Your task to perform on an android device: open chrome privacy settings Image 0: 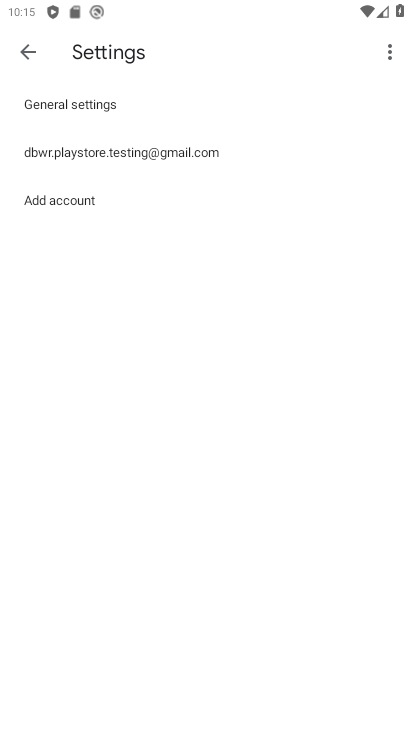
Step 0: press back button
Your task to perform on an android device: open chrome privacy settings Image 1: 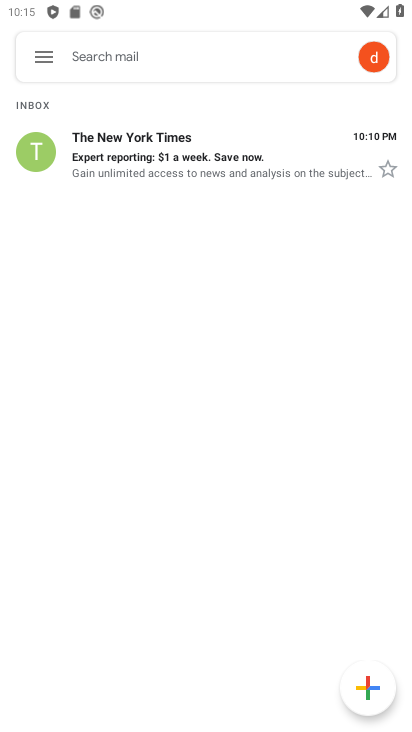
Step 1: press back button
Your task to perform on an android device: open chrome privacy settings Image 2: 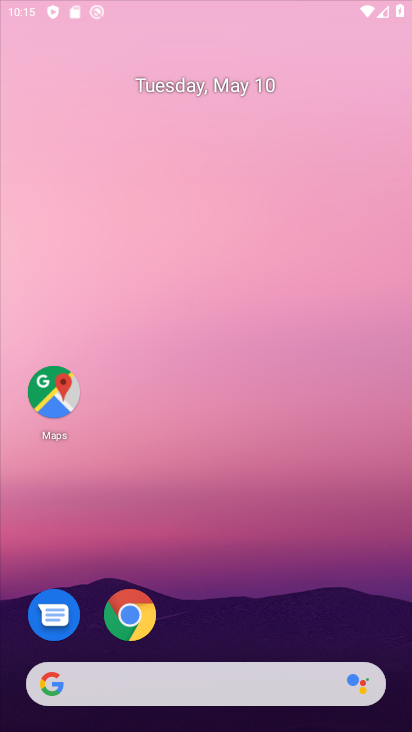
Step 2: press back button
Your task to perform on an android device: open chrome privacy settings Image 3: 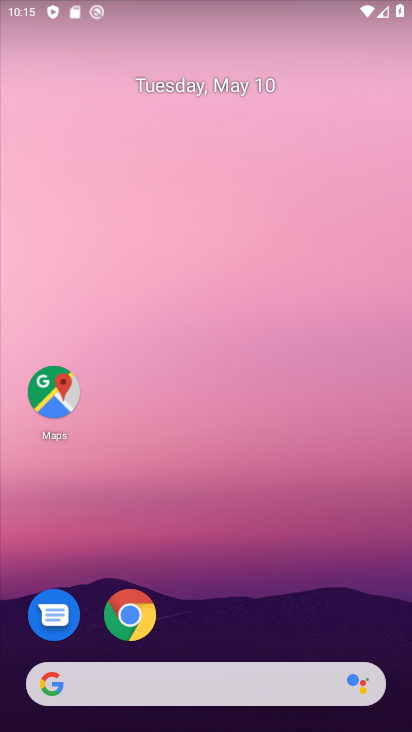
Step 3: click (130, 613)
Your task to perform on an android device: open chrome privacy settings Image 4: 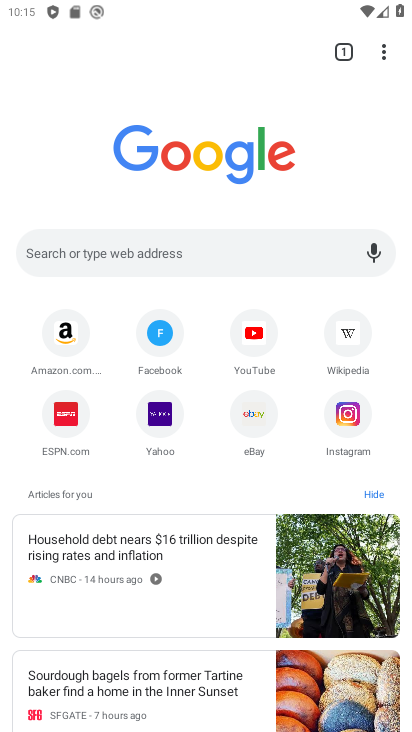
Step 4: click (382, 50)
Your task to perform on an android device: open chrome privacy settings Image 5: 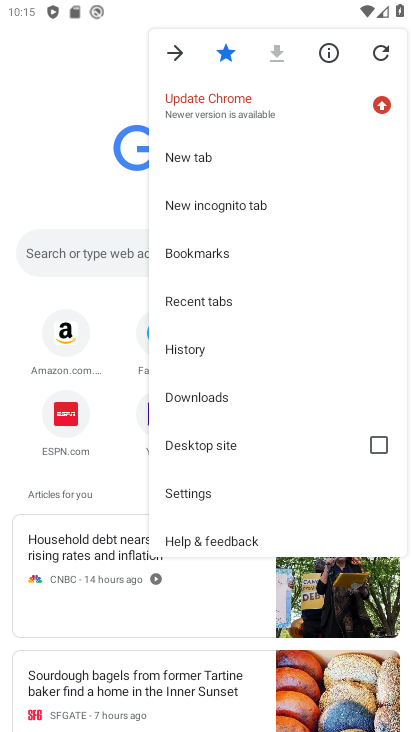
Step 5: click (198, 494)
Your task to perform on an android device: open chrome privacy settings Image 6: 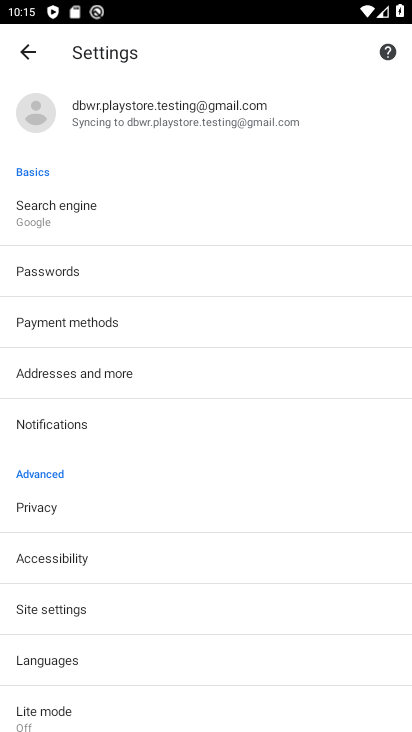
Step 6: click (43, 507)
Your task to perform on an android device: open chrome privacy settings Image 7: 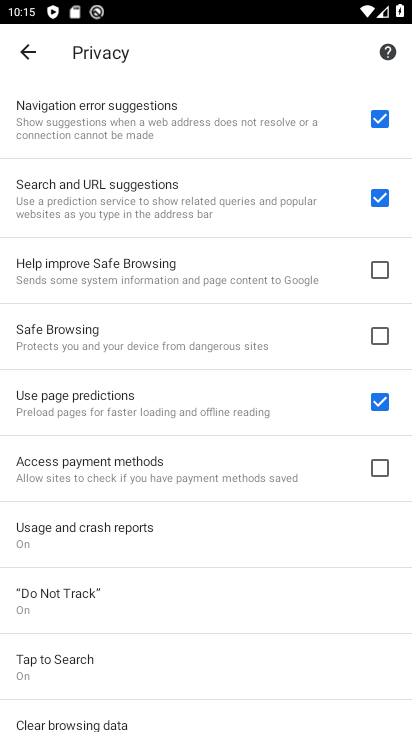
Step 7: task complete